Your task to perform on an android device: Clear the cart on walmart. Search for asus rog on walmart, select the first entry, add it to the cart, then select checkout. Image 0: 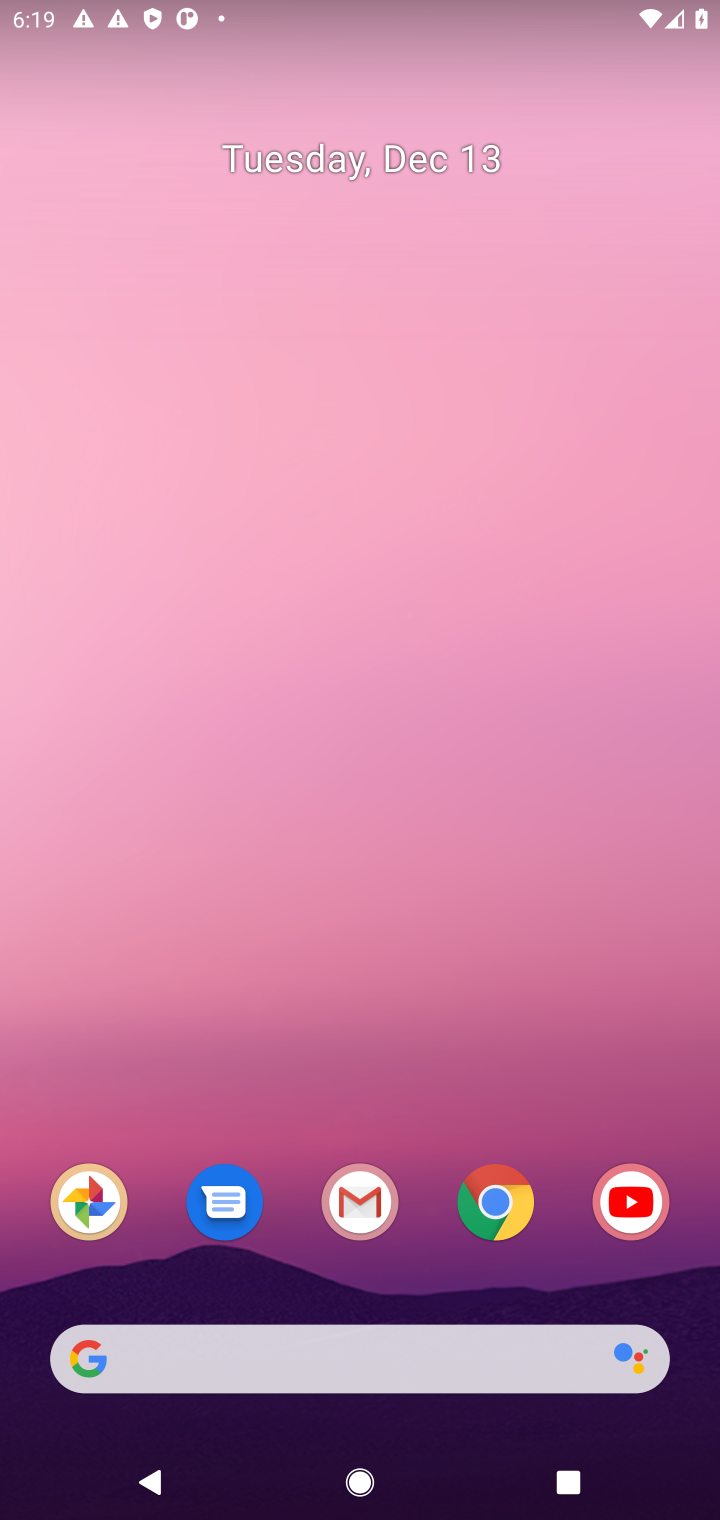
Step 0: click (498, 1206)
Your task to perform on an android device: Clear the cart on walmart. Search for asus rog on walmart, select the first entry, add it to the cart, then select checkout. Image 1: 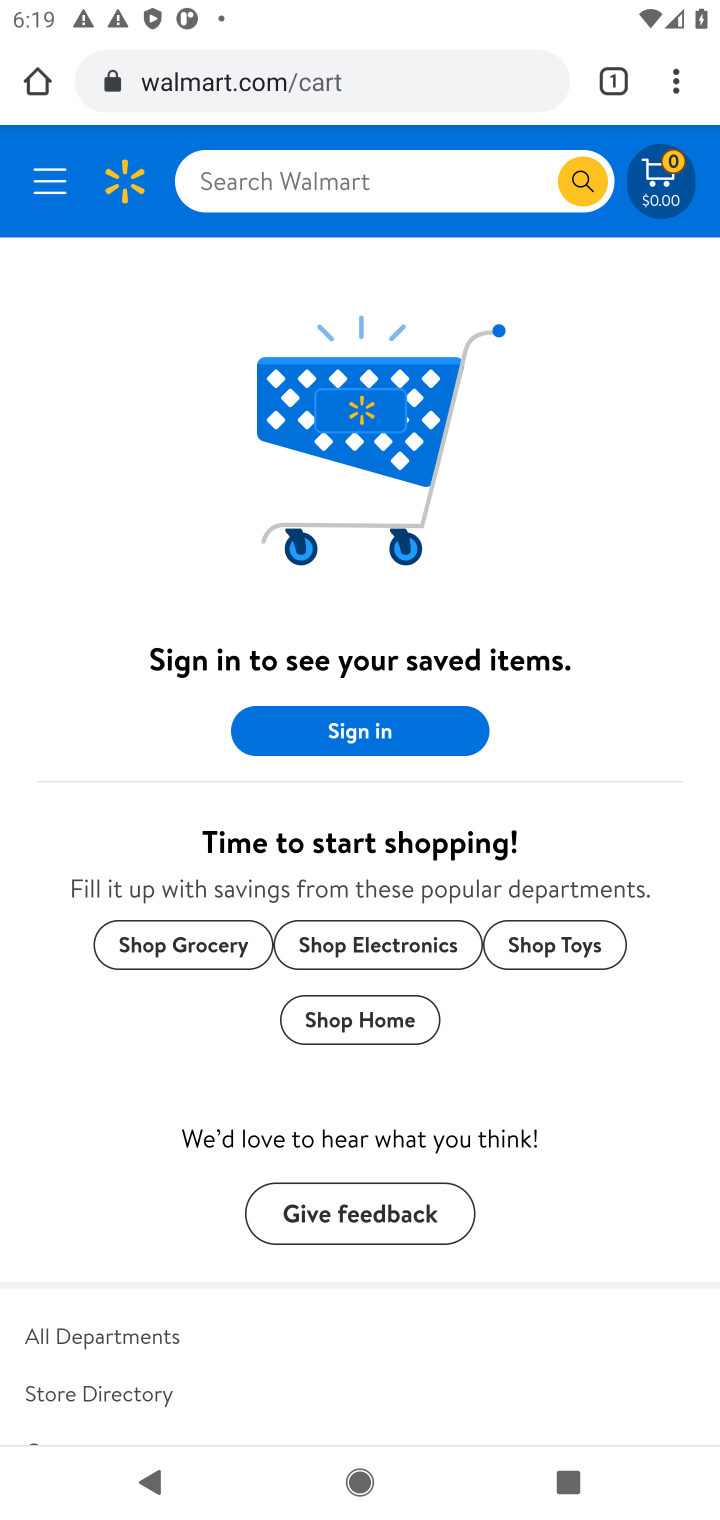
Step 1: click (240, 187)
Your task to perform on an android device: Clear the cart on walmart. Search for asus rog on walmart, select the first entry, add it to the cart, then select checkout. Image 2: 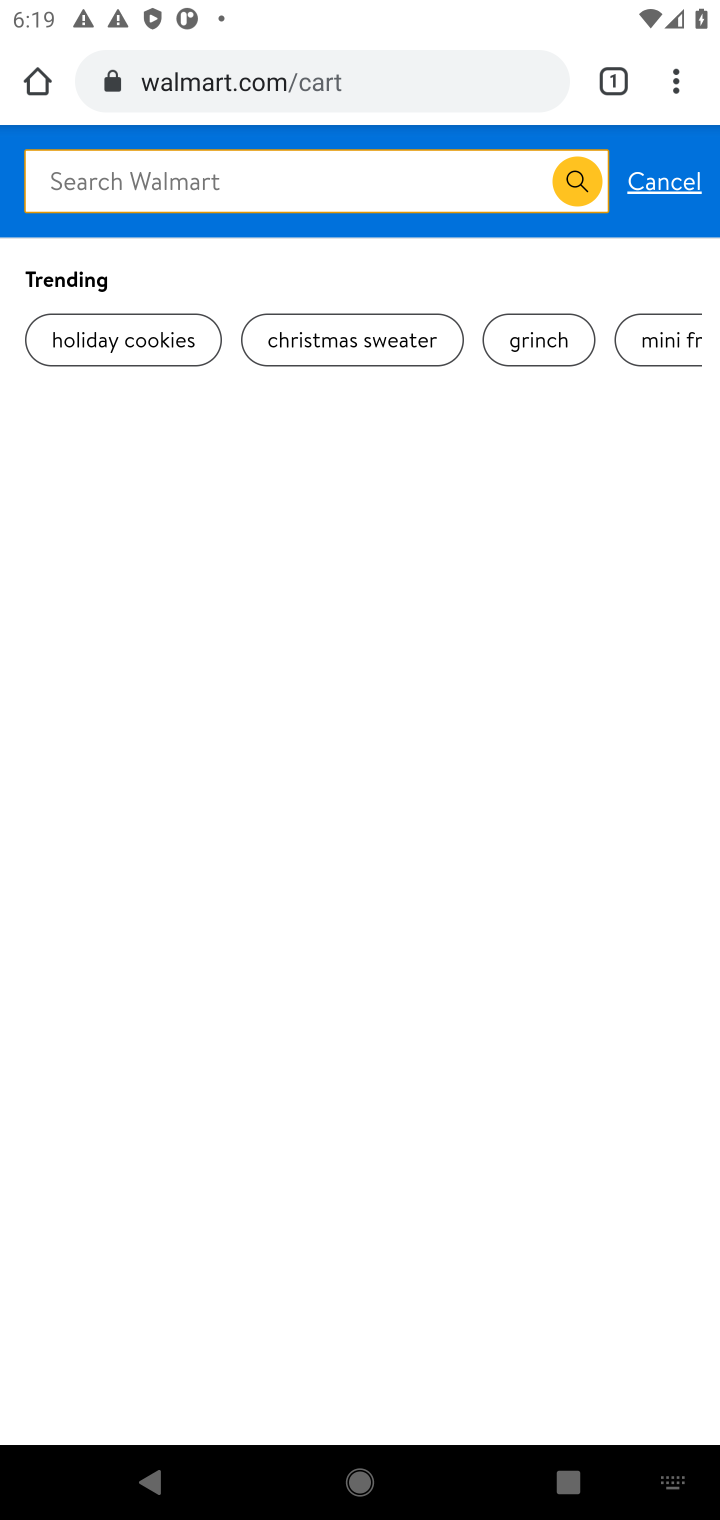
Step 2: type "asus rog"
Your task to perform on an android device: Clear the cart on walmart. Search for asus rog on walmart, select the first entry, add it to the cart, then select checkout. Image 3: 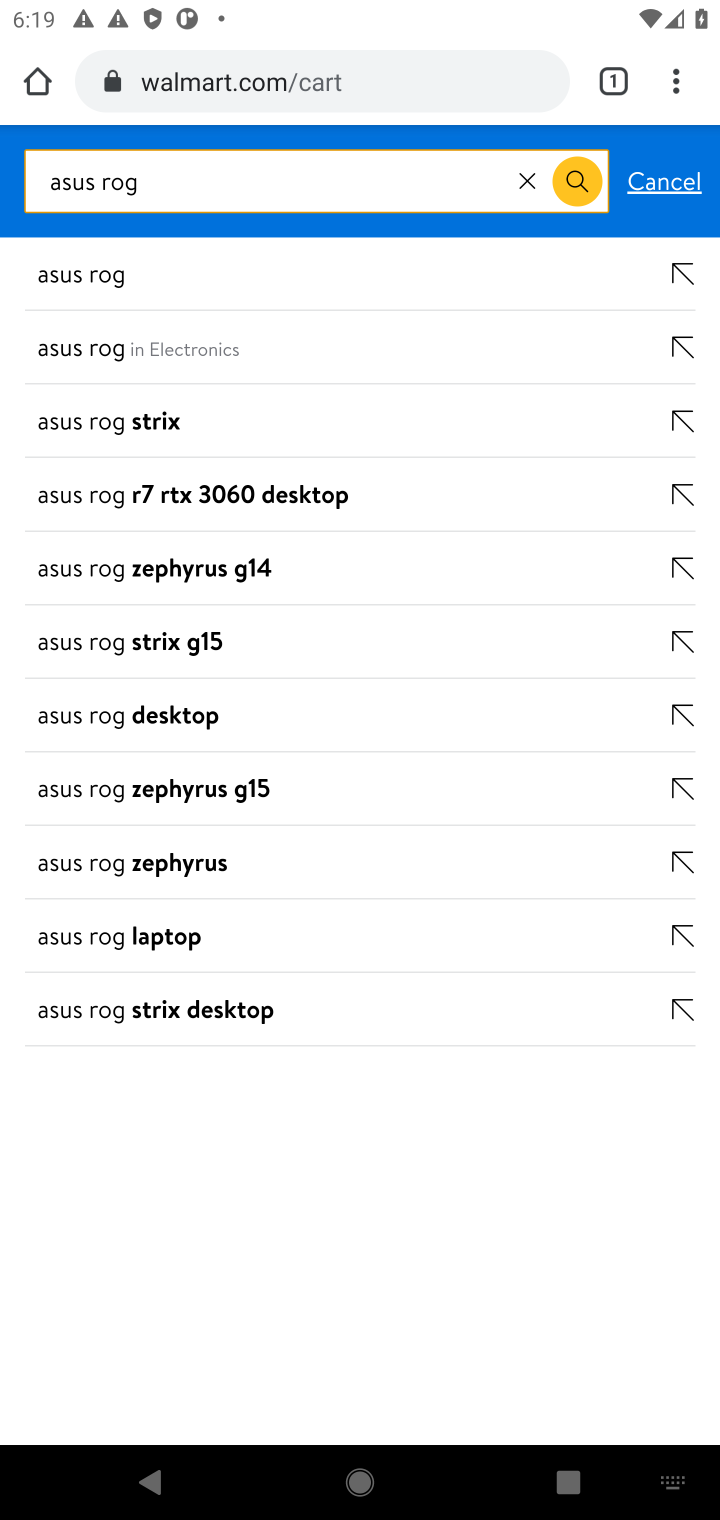
Step 3: click (86, 290)
Your task to perform on an android device: Clear the cart on walmart. Search for asus rog on walmart, select the first entry, add it to the cart, then select checkout. Image 4: 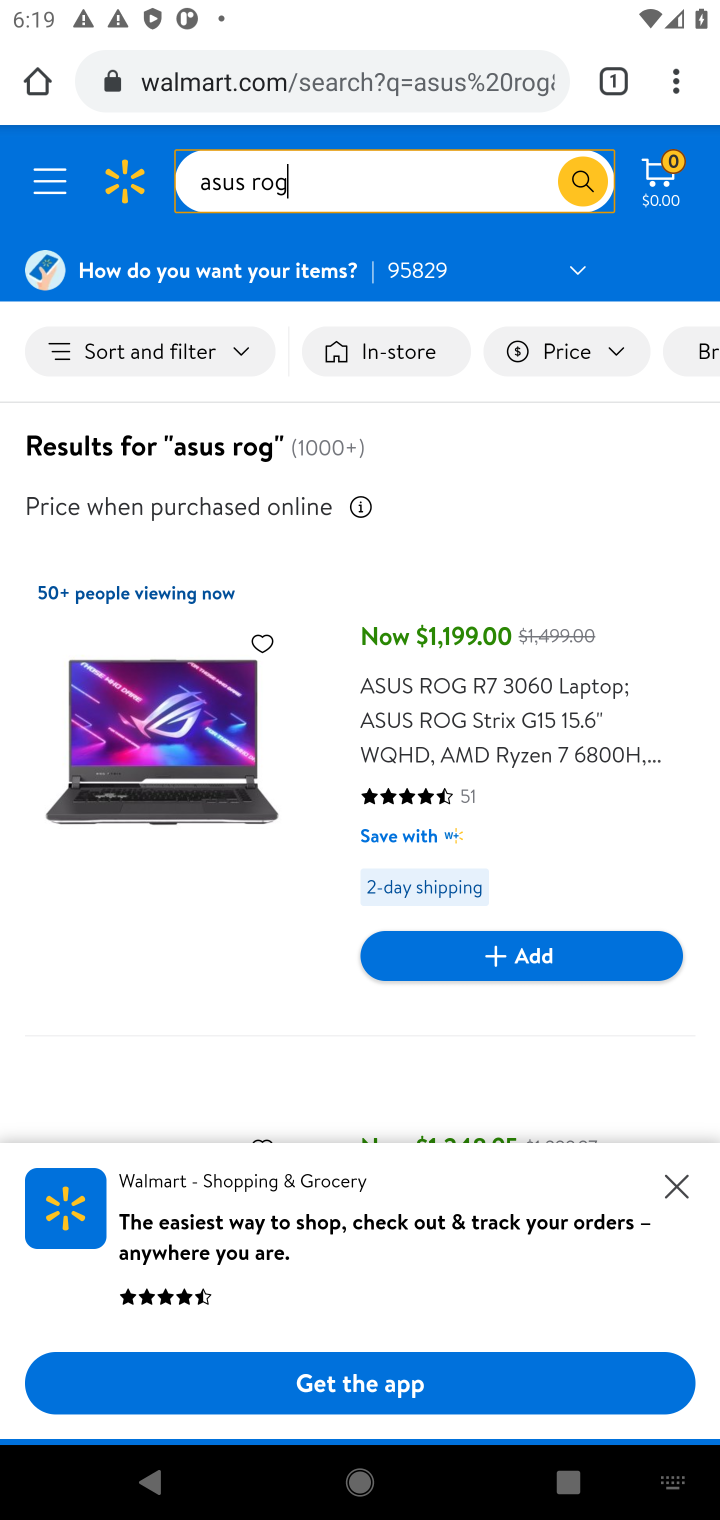
Step 4: click (438, 745)
Your task to perform on an android device: Clear the cart on walmart. Search for asus rog on walmart, select the first entry, add it to the cart, then select checkout. Image 5: 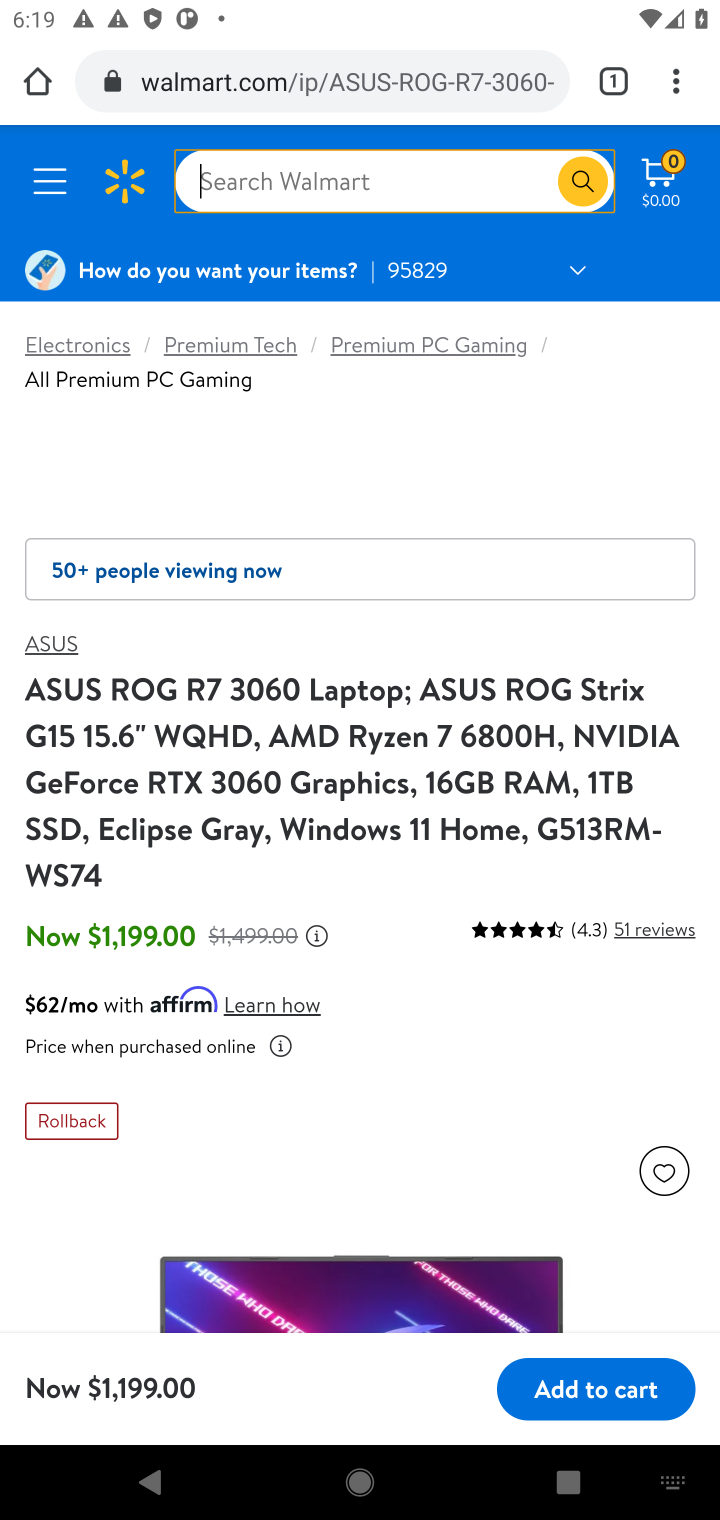
Step 5: click (564, 1391)
Your task to perform on an android device: Clear the cart on walmart. Search for asus rog on walmart, select the first entry, add it to the cart, then select checkout. Image 6: 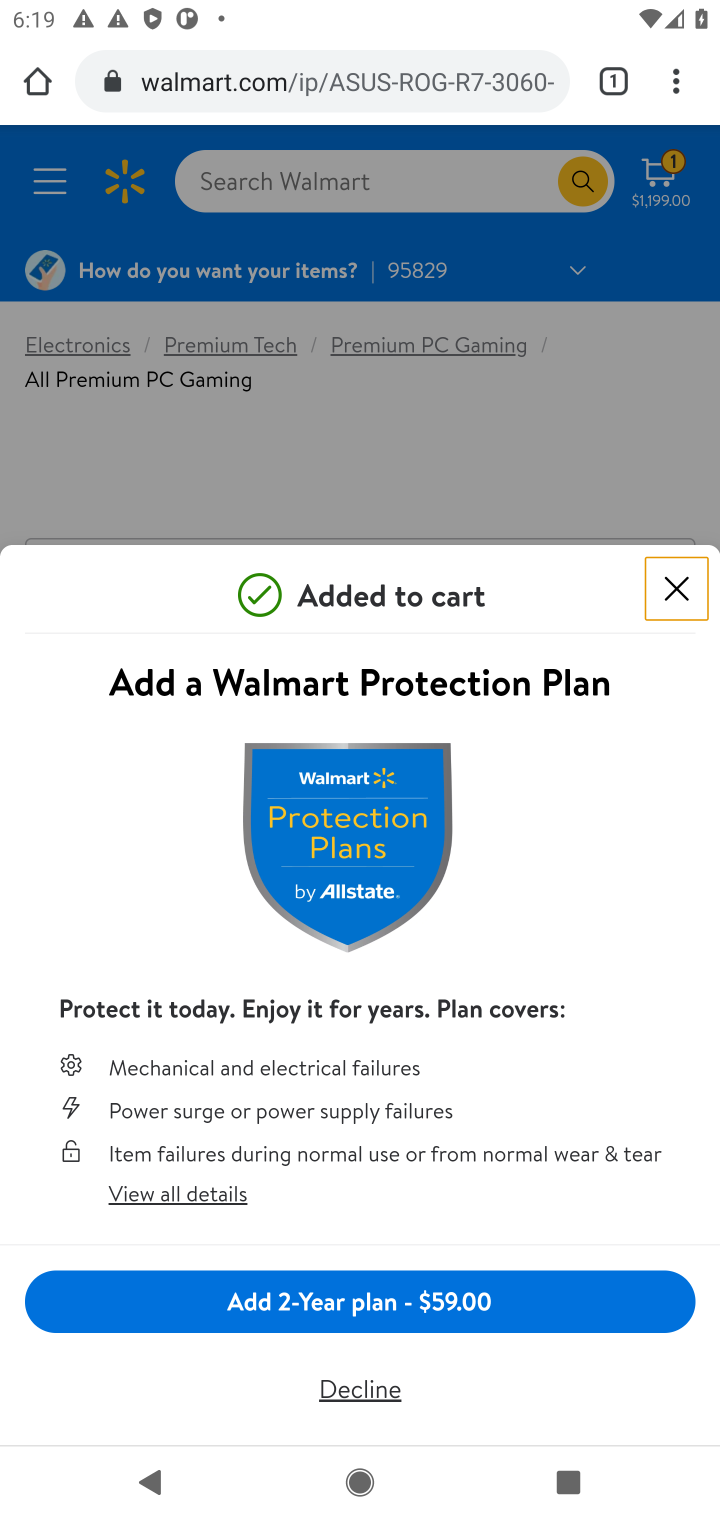
Step 6: click (669, 578)
Your task to perform on an android device: Clear the cart on walmart. Search for asus rog on walmart, select the first entry, add it to the cart, then select checkout. Image 7: 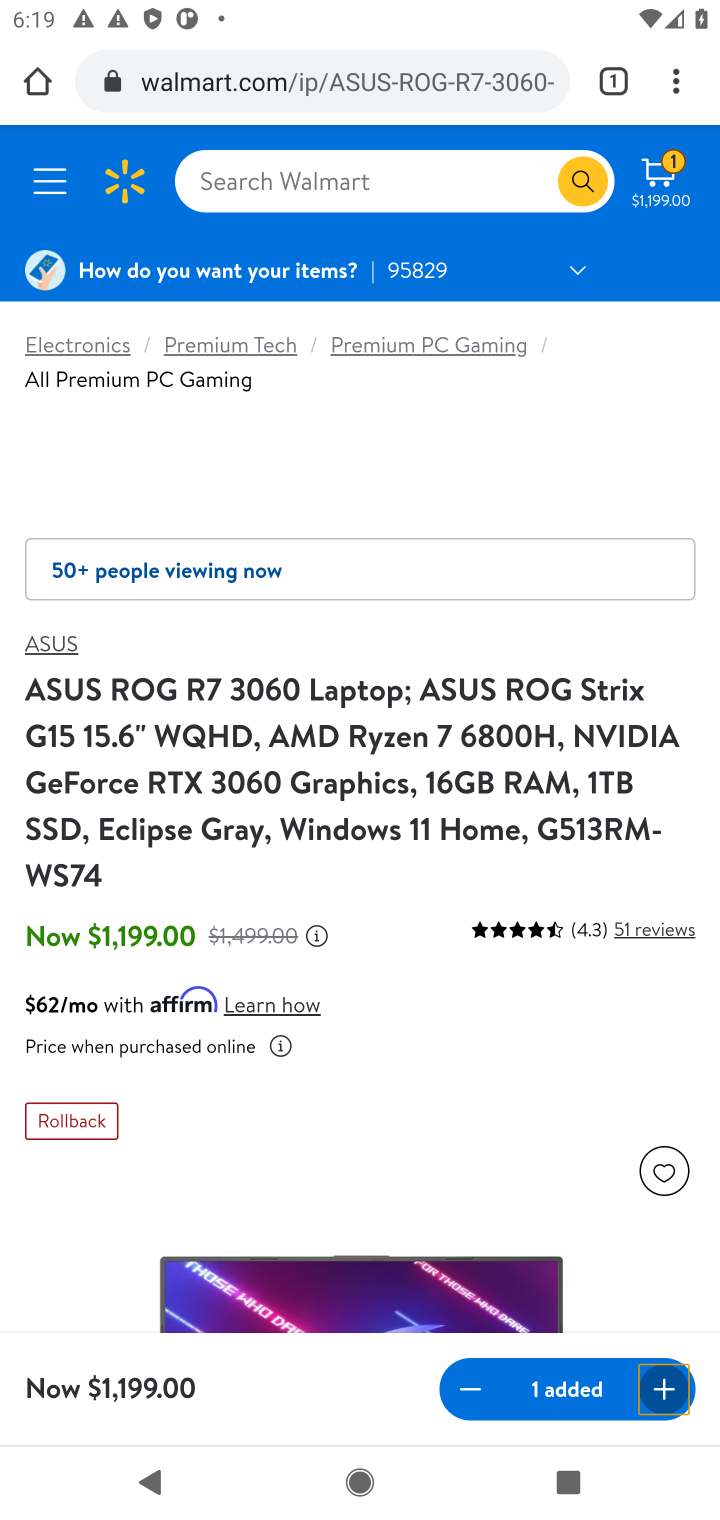
Step 7: click (662, 182)
Your task to perform on an android device: Clear the cart on walmart. Search for asus rog on walmart, select the first entry, add it to the cart, then select checkout. Image 8: 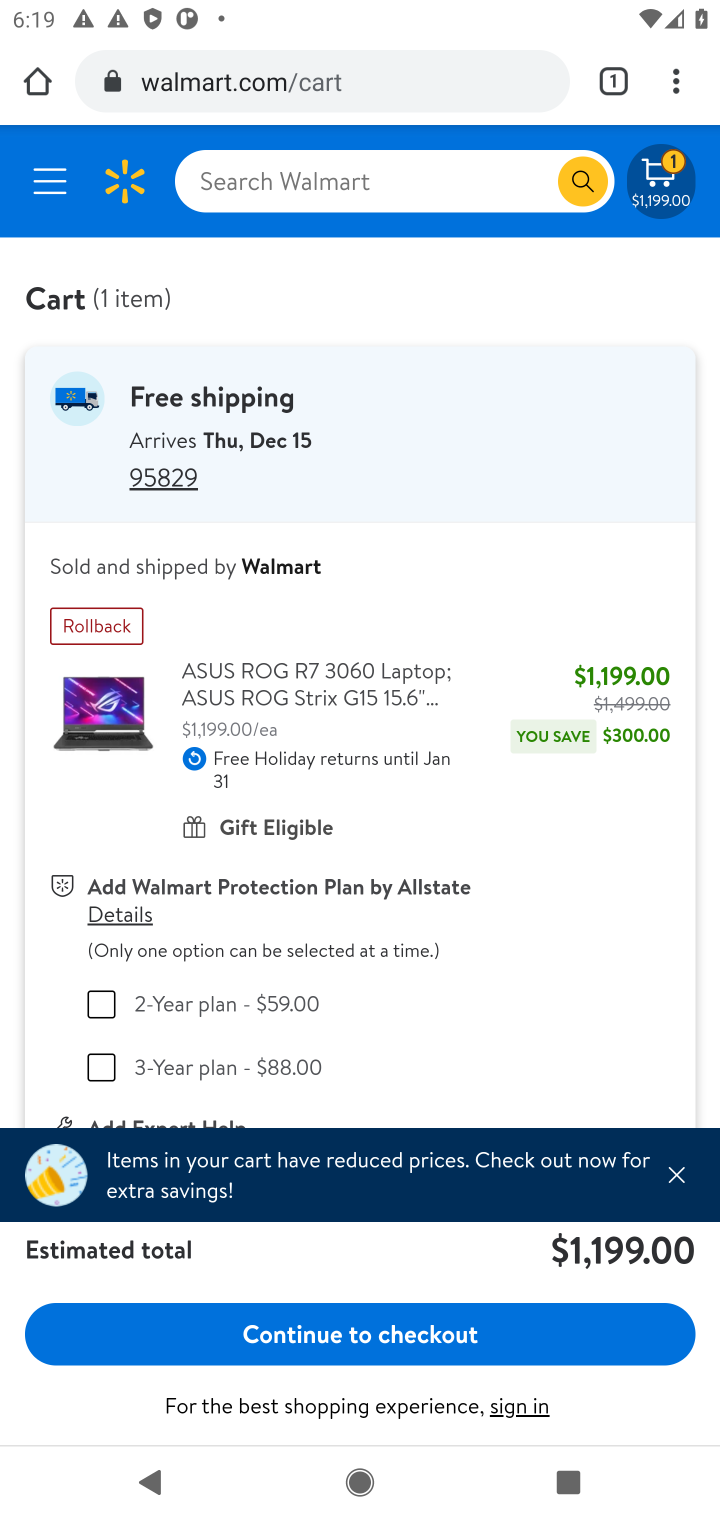
Step 8: click (358, 1341)
Your task to perform on an android device: Clear the cart on walmart. Search for asus rog on walmart, select the first entry, add it to the cart, then select checkout. Image 9: 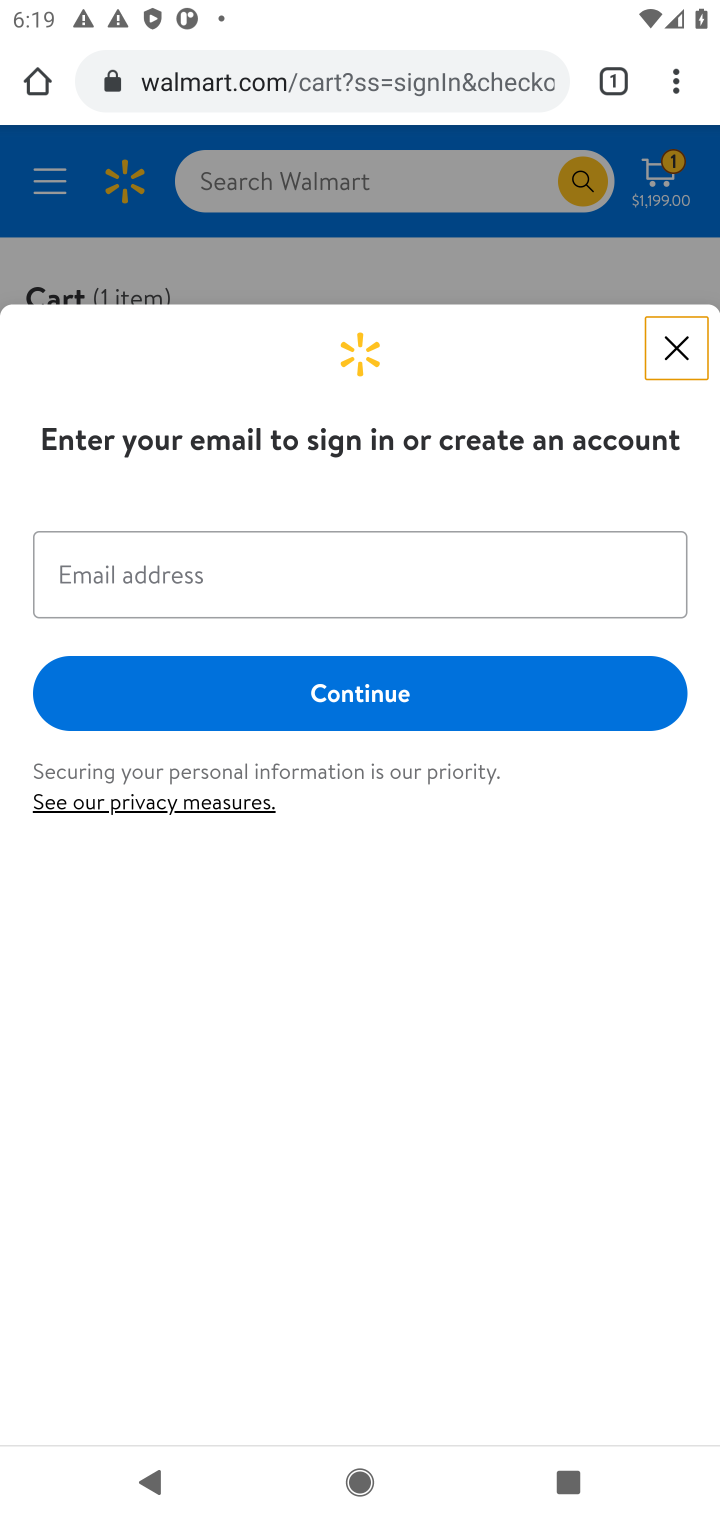
Step 9: task complete